Your task to perform on an android device: Open Google Chrome and open the bookmarks view Image 0: 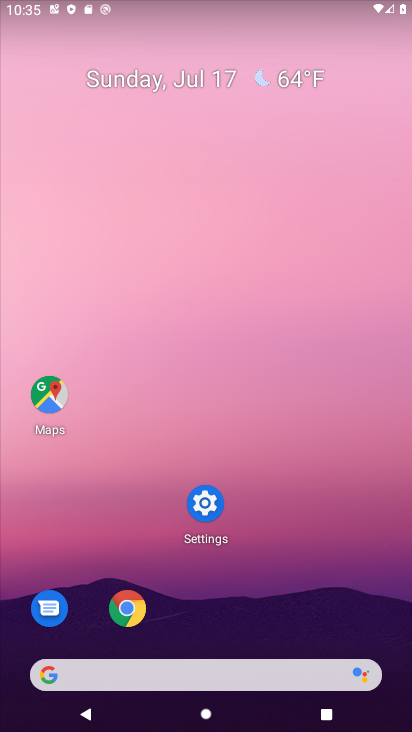
Step 0: click (127, 612)
Your task to perform on an android device: Open Google Chrome and open the bookmarks view Image 1: 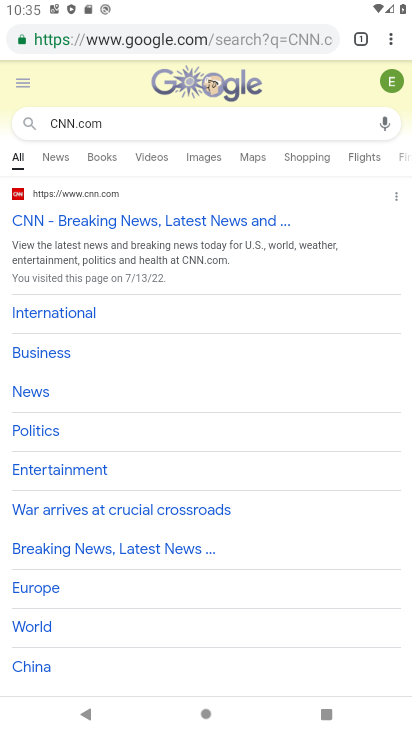
Step 1: click (390, 38)
Your task to perform on an android device: Open Google Chrome and open the bookmarks view Image 2: 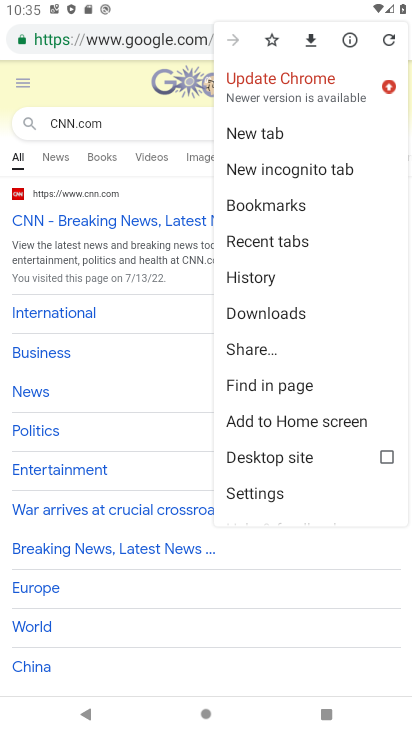
Step 2: click (282, 195)
Your task to perform on an android device: Open Google Chrome and open the bookmarks view Image 3: 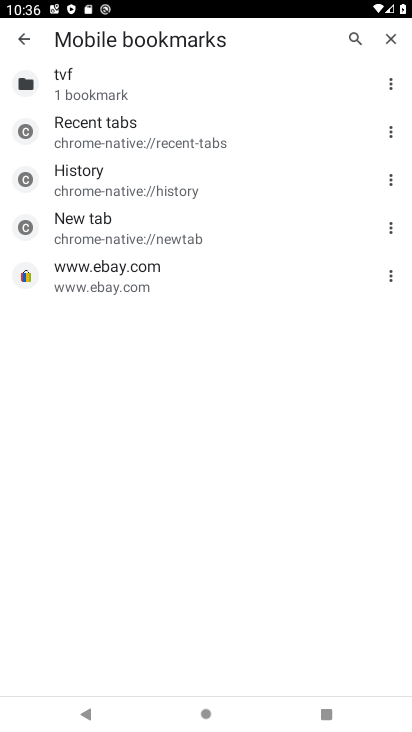
Step 3: task complete